Your task to perform on an android device: What's on my calendar tomorrow? Image 0: 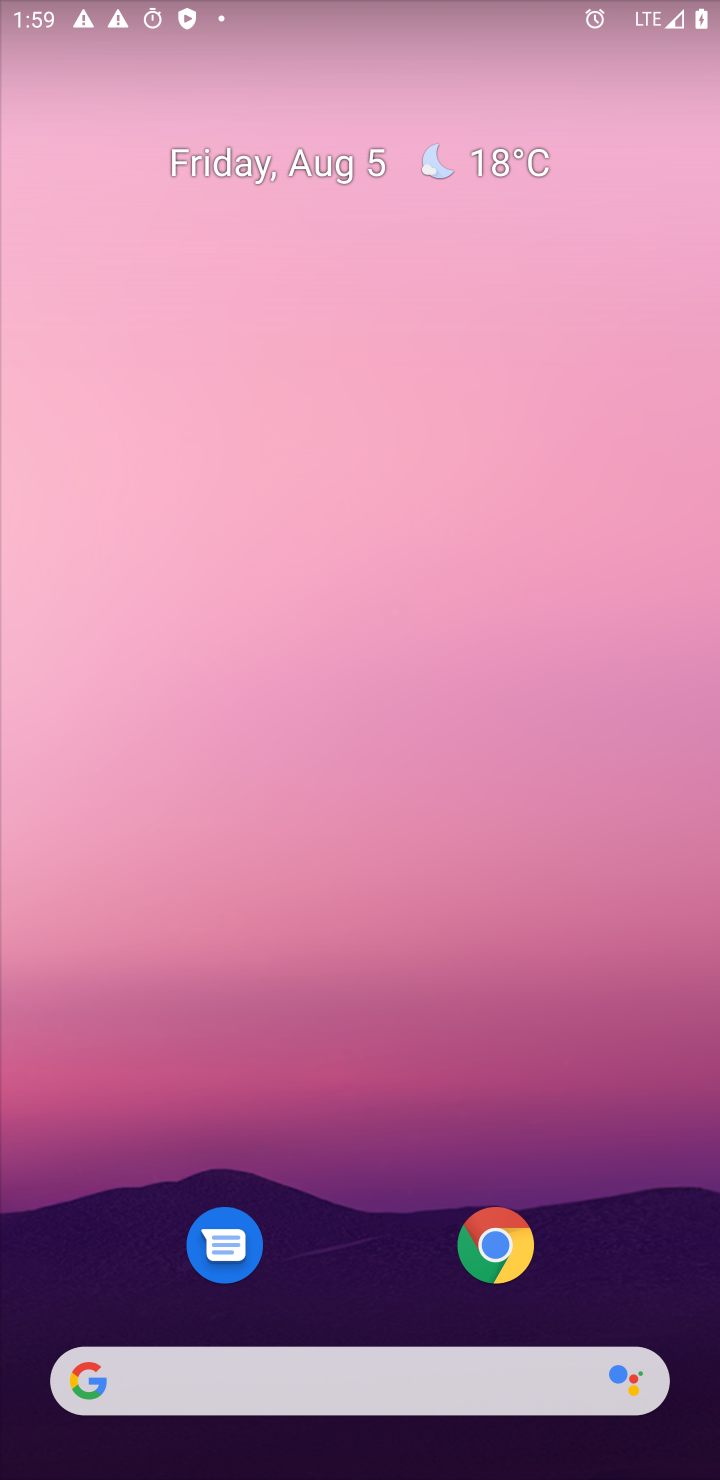
Step 0: press home button
Your task to perform on an android device: What's on my calendar tomorrow? Image 1: 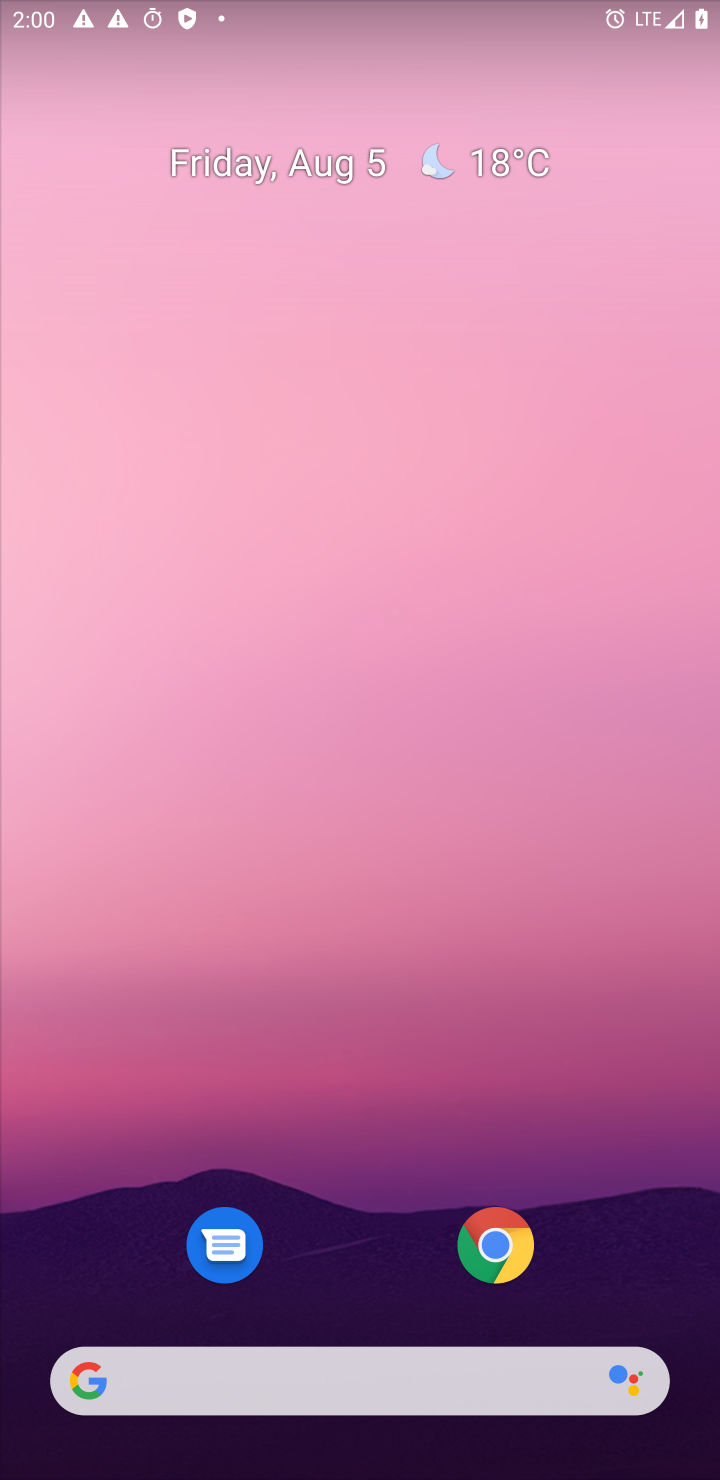
Step 1: drag from (375, 1194) to (495, 334)
Your task to perform on an android device: What's on my calendar tomorrow? Image 2: 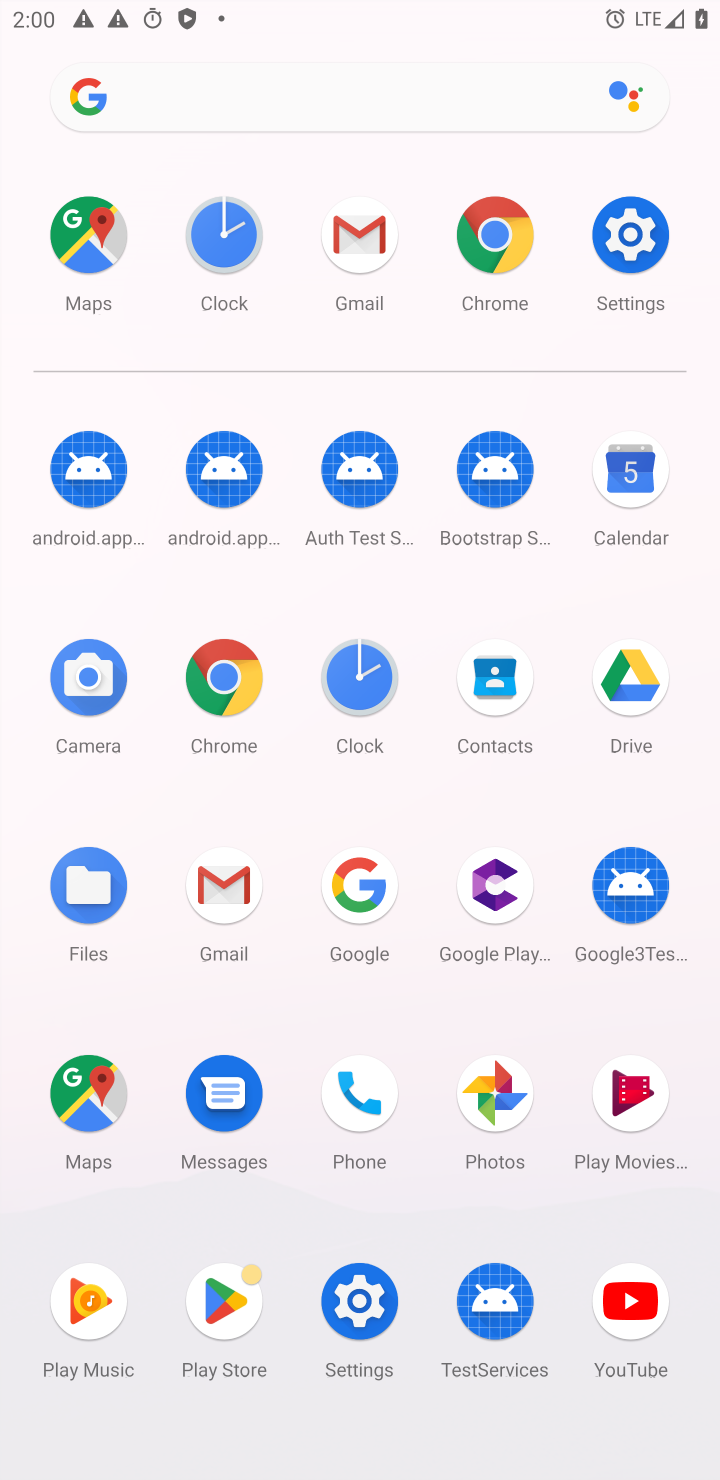
Step 2: click (633, 484)
Your task to perform on an android device: What's on my calendar tomorrow? Image 3: 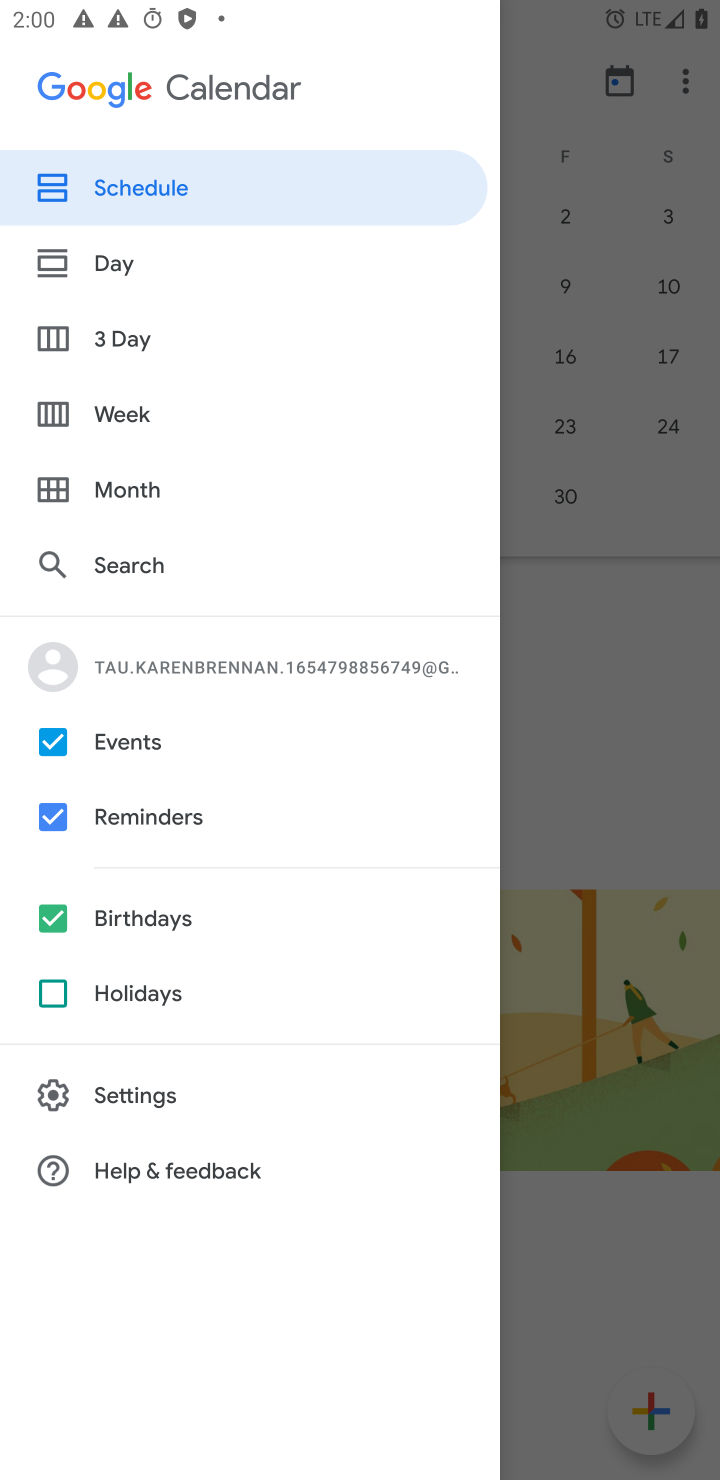
Step 3: drag from (654, 570) to (212, 535)
Your task to perform on an android device: What's on my calendar tomorrow? Image 4: 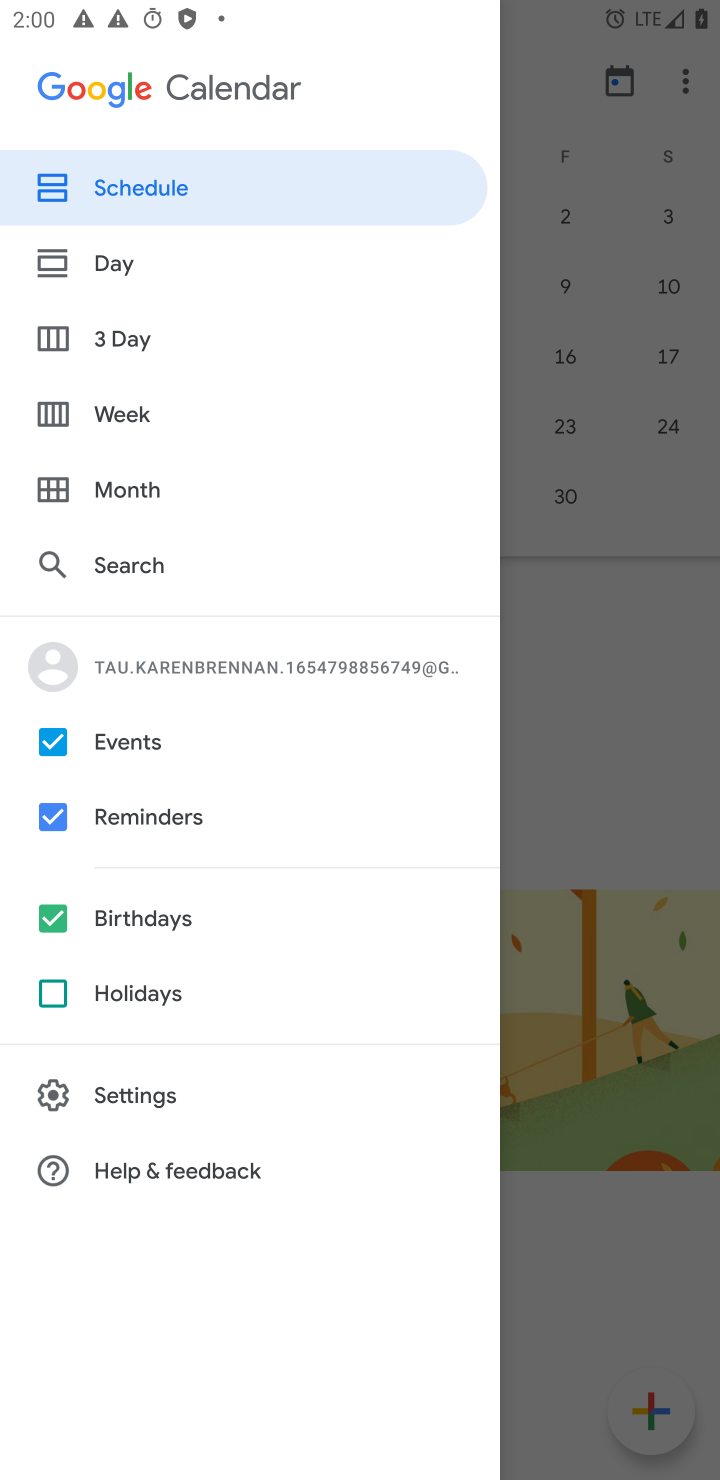
Step 4: click (143, 489)
Your task to perform on an android device: What's on my calendar tomorrow? Image 5: 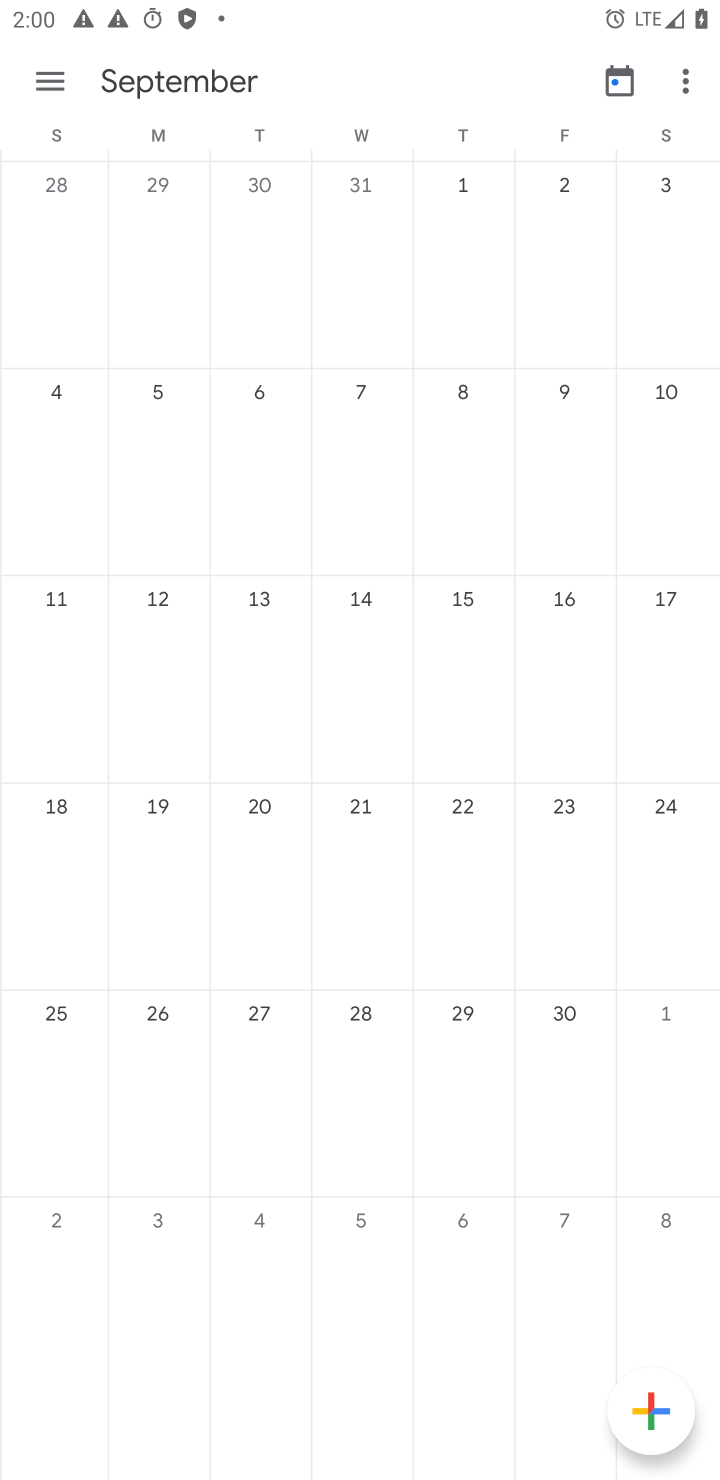
Step 5: drag from (356, 487) to (676, 529)
Your task to perform on an android device: What's on my calendar tomorrow? Image 6: 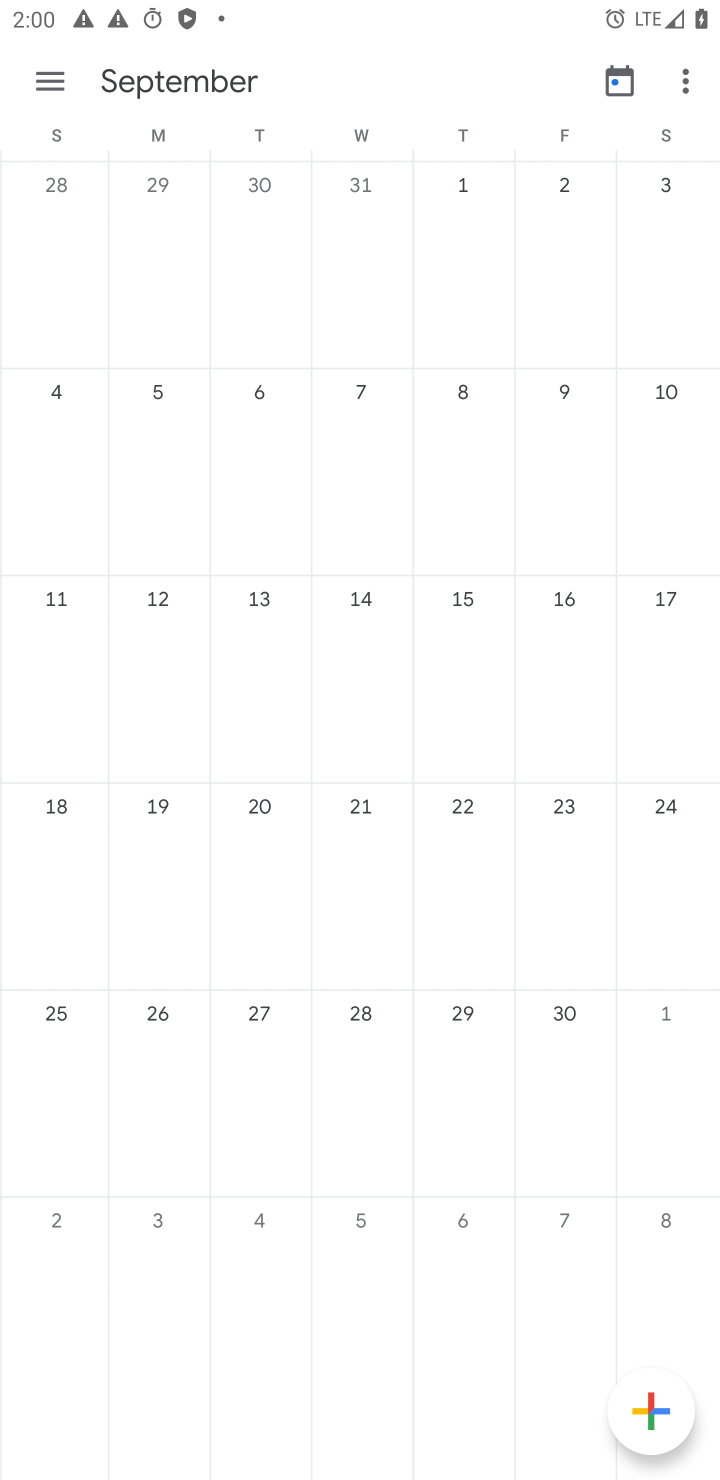
Step 6: drag from (105, 497) to (697, 670)
Your task to perform on an android device: What's on my calendar tomorrow? Image 7: 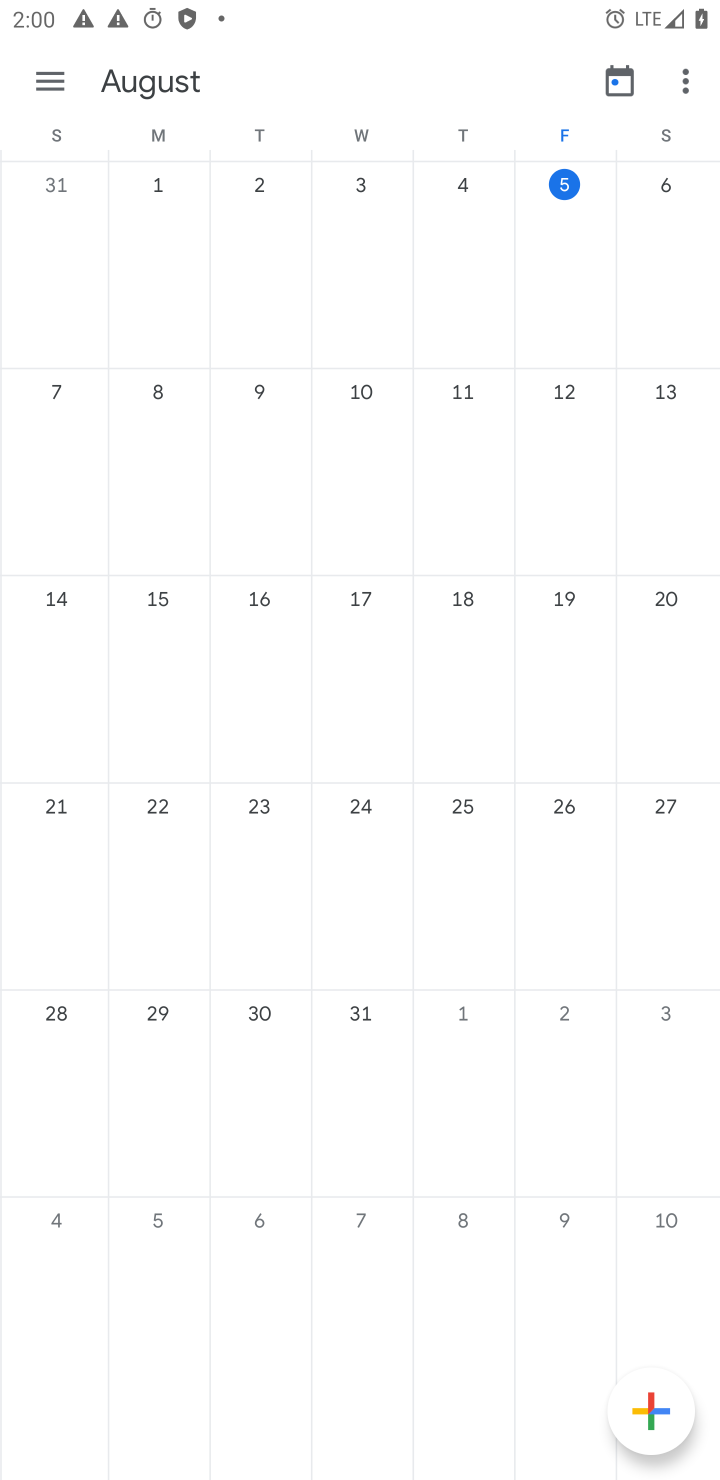
Step 7: click (660, 194)
Your task to perform on an android device: What's on my calendar tomorrow? Image 8: 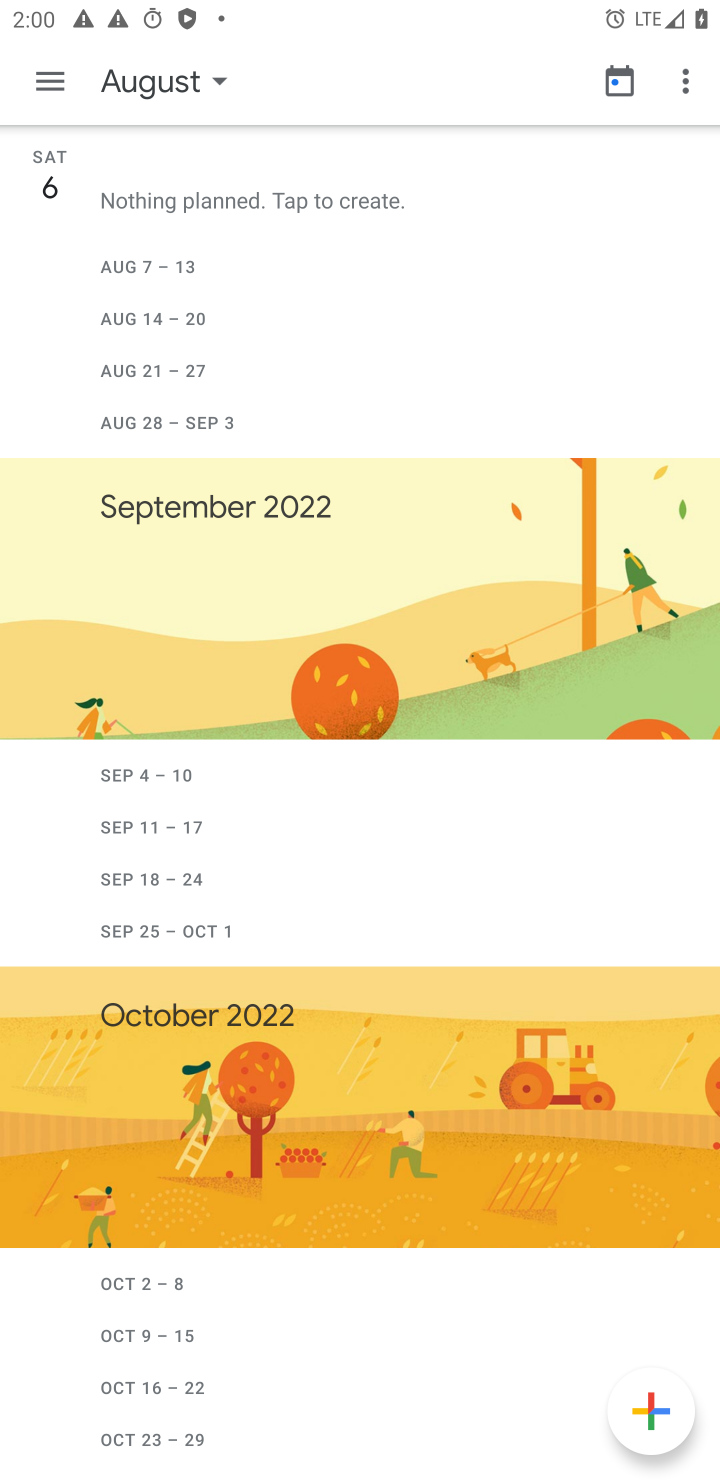
Step 8: task complete